Your task to perform on an android device: Is it going to rain tomorrow? Image 0: 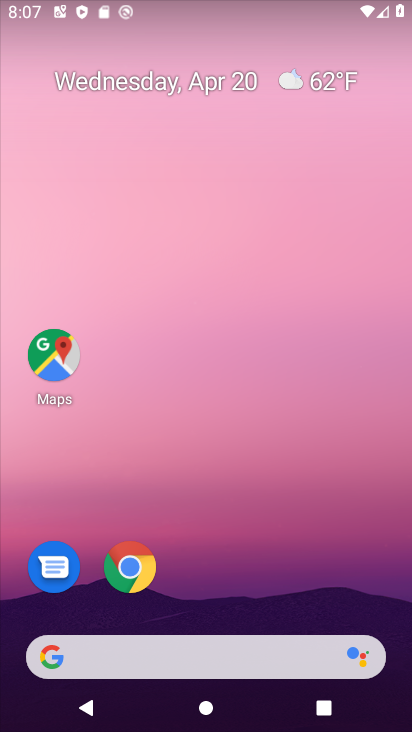
Step 0: click (357, 652)
Your task to perform on an android device: Is it going to rain tomorrow? Image 1: 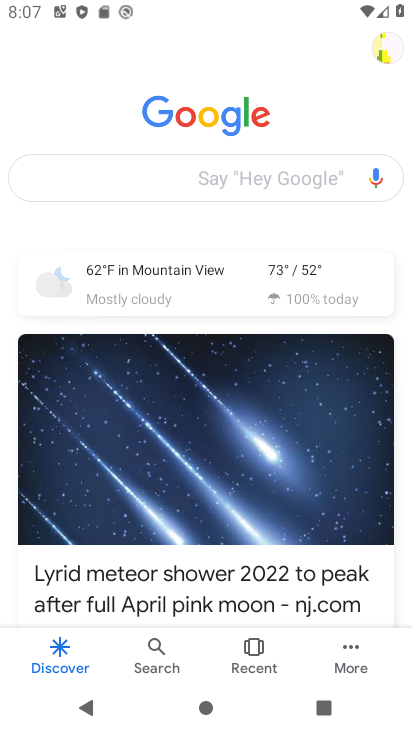
Step 1: click (130, 276)
Your task to perform on an android device: Is it going to rain tomorrow? Image 2: 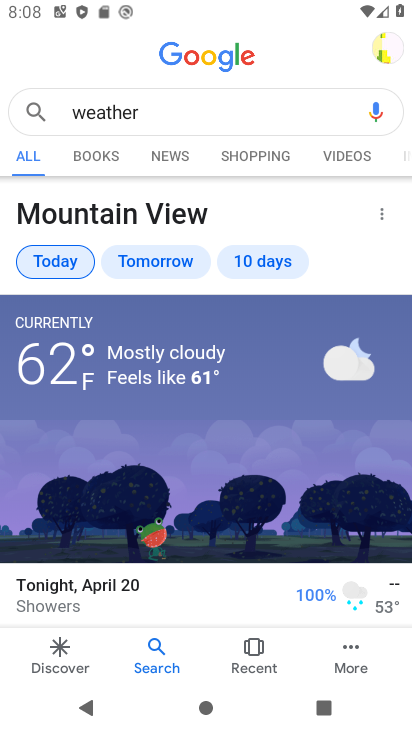
Step 2: click (143, 263)
Your task to perform on an android device: Is it going to rain tomorrow? Image 3: 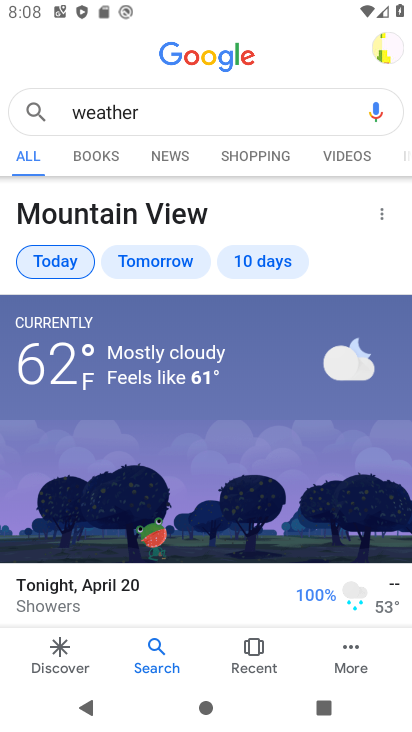
Step 3: click (161, 262)
Your task to perform on an android device: Is it going to rain tomorrow? Image 4: 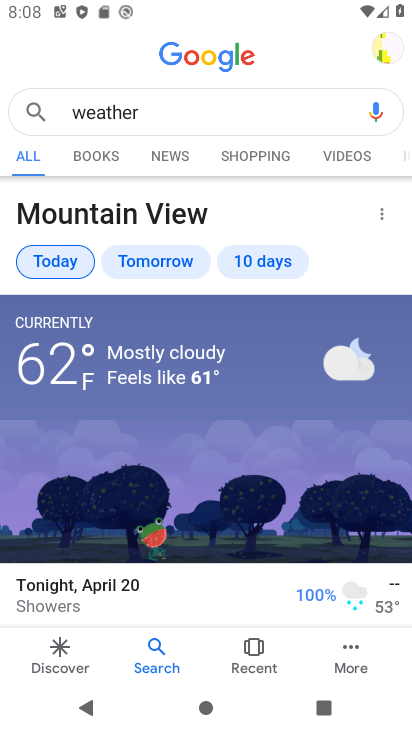
Step 4: drag from (279, 393) to (278, 220)
Your task to perform on an android device: Is it going to rain tomorrow? Image 5: 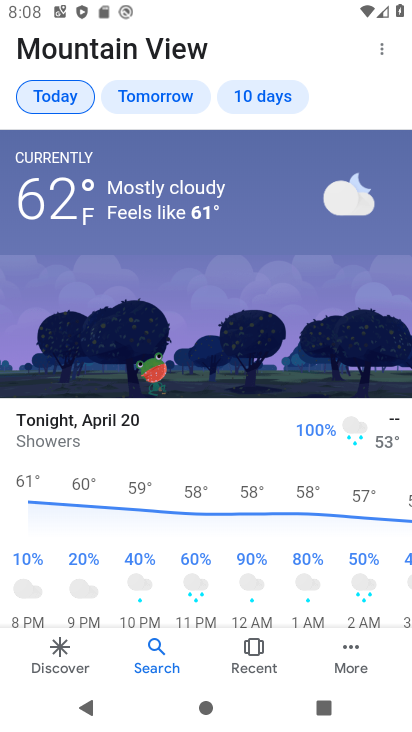
Step 5: click (156, 98)
Your task to perform on an android device: Is it going to rain tomorrow? Image 6: 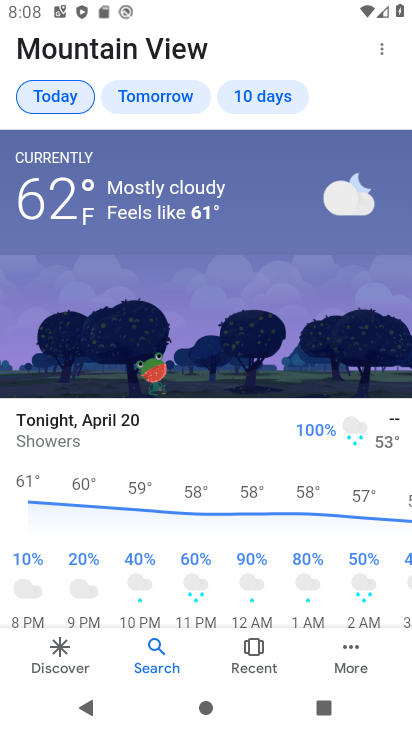
Step 6: drag from (334, 474) to (42, 475)
Your task to perform on an android device: Is it going to rain tomorrow? Image 7: 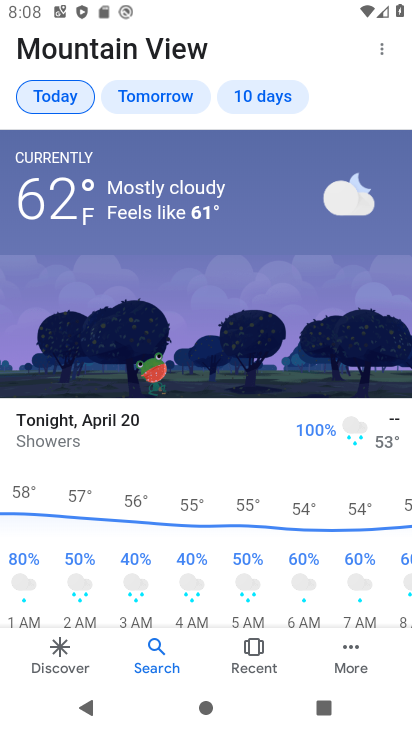
Step 7: drag from (328, 508) to (26, 518)
Your task to perform on an android device: Is it going to rain tomorrow? Image 8: 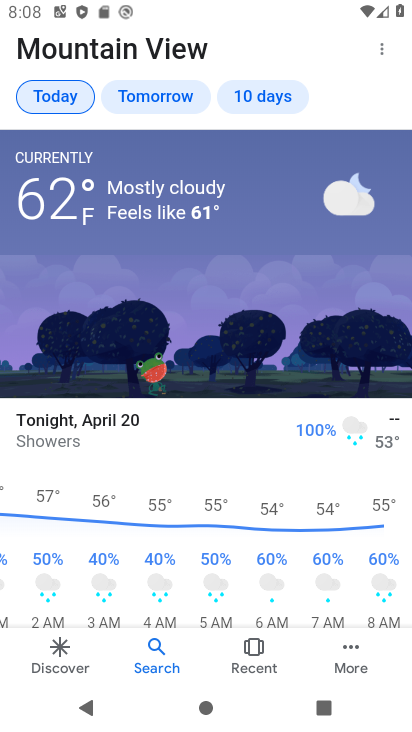
Step 8: drag from (349, 503) to (159, 507)
Your task to perform on an android device: Is it going to rain tomorrow? Image 9: 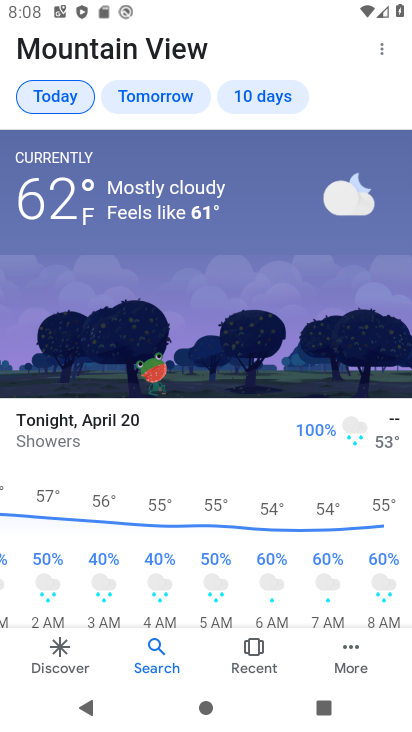
Step 9: click (131, 426)
Your task to perform on an android device: Is it going to rain tomorrow? Image 10: 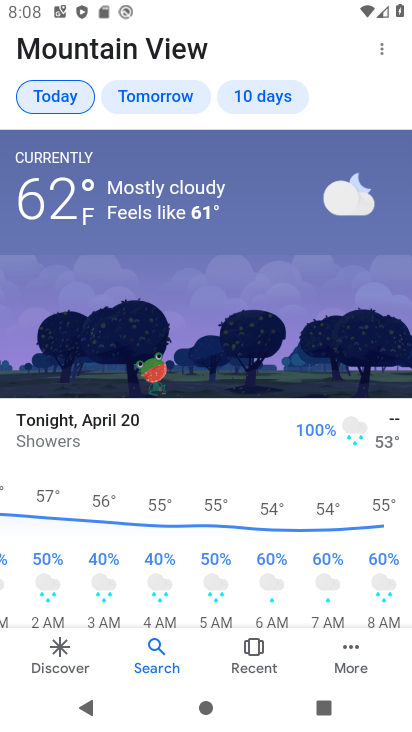
Step 10: click (118, 411)
Your task to perform on an android device: Is it going to rain tomorrow? Image 11: 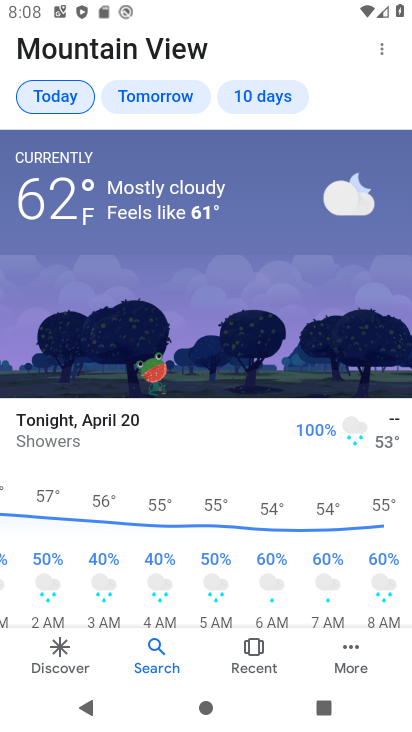
Step 11: click (129, 102)
Your task to perform on an android device: Is it going to rain tomorrow? Image 12: 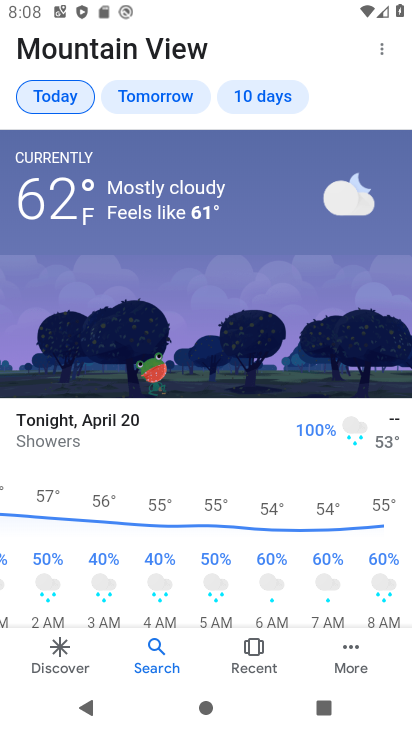
Step 12: click (170, 94)
Your task to perform on an android device: Is it going to rain tomorrow? Image 13: 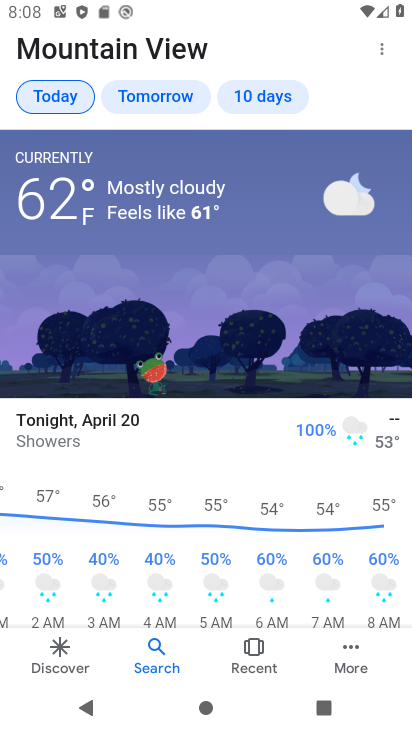
Step 13: click (170, 94)
Your task to perform on an android device: Is it going to rain tomorrow? Image 14: 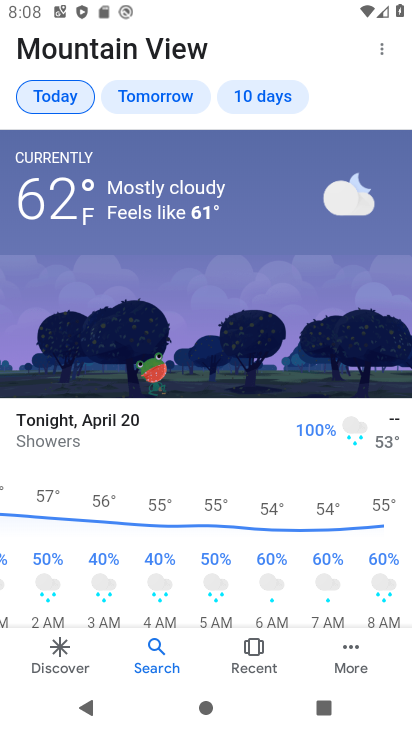
Step 14: drag from (221, 278) to (215, 545)
Your task to perform on an android device: Is it going to rain tomorrow? Image 15: 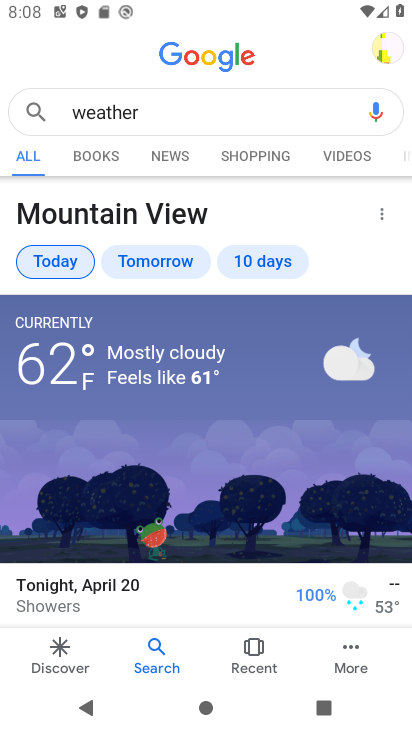
Step 15: drag from (131, 108) to (81, 109)
Your task to perform on an android device: Is it going to rain tomorrow? Image 16: 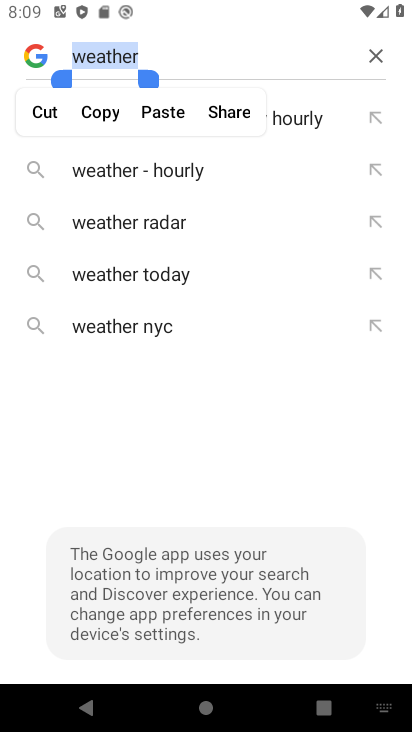
Step 16: click (377, 58)
Your task to perform on an android device: Is it going to rain tomorrow? Image 17: 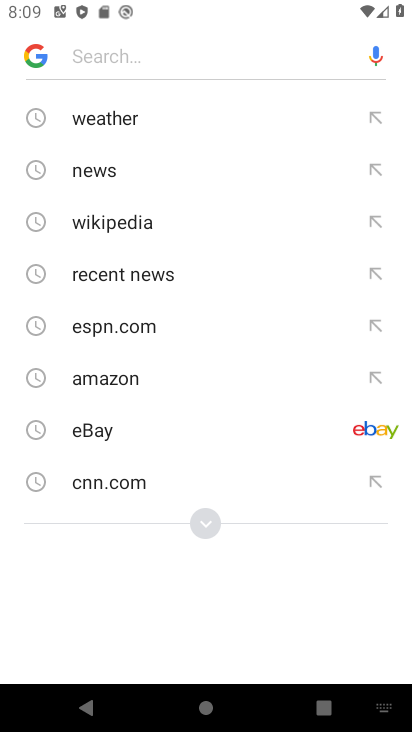
Step 17: click (164, 49)
Your task to perform on an android device: Is it going to rain tomorrow? Image 18: 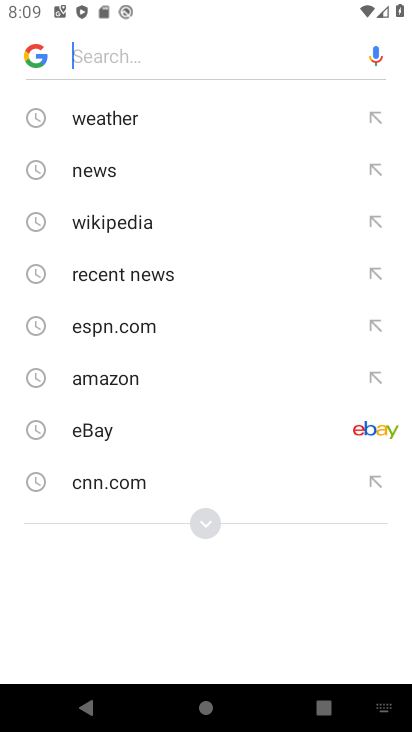
Step 18: type "Is it going to rain tomorrow"
Your task to perform on an android device: Is it going to rain tomorrow? Image 19: 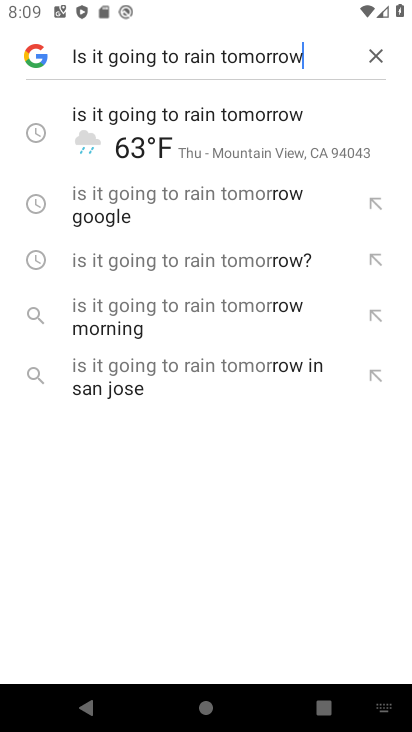
Step 19: type ""
Your task to perform on an android device: Is it going to rain tomorrow? Image 20: 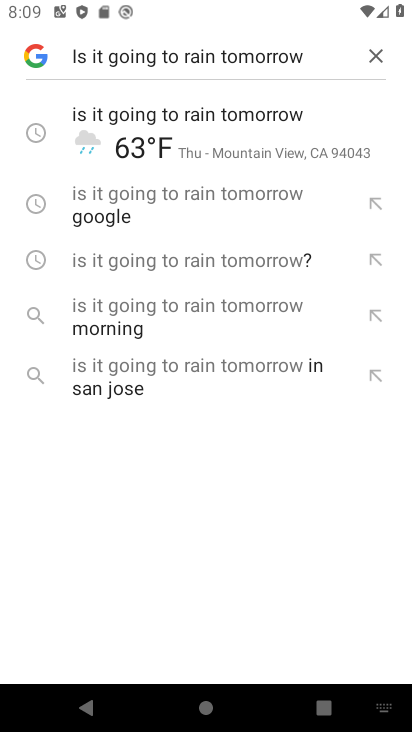
Step 20: click (176, 120)
Your task to perform on an android device: Is it going to rain tomorrow? Image 21: 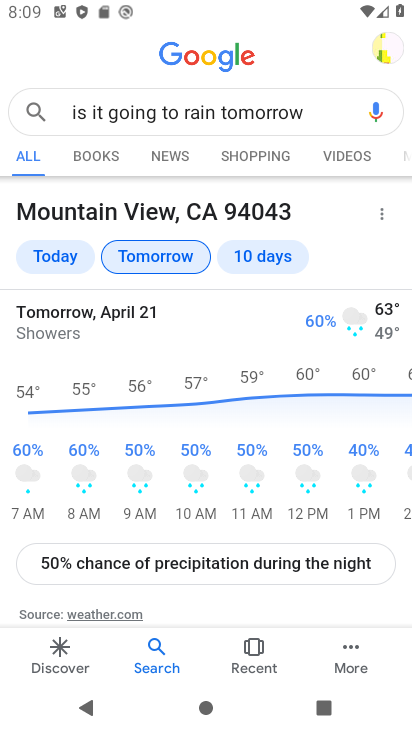
Step 21: task complete